Your task to perform on an android device: install app "Contacts" Image 0: 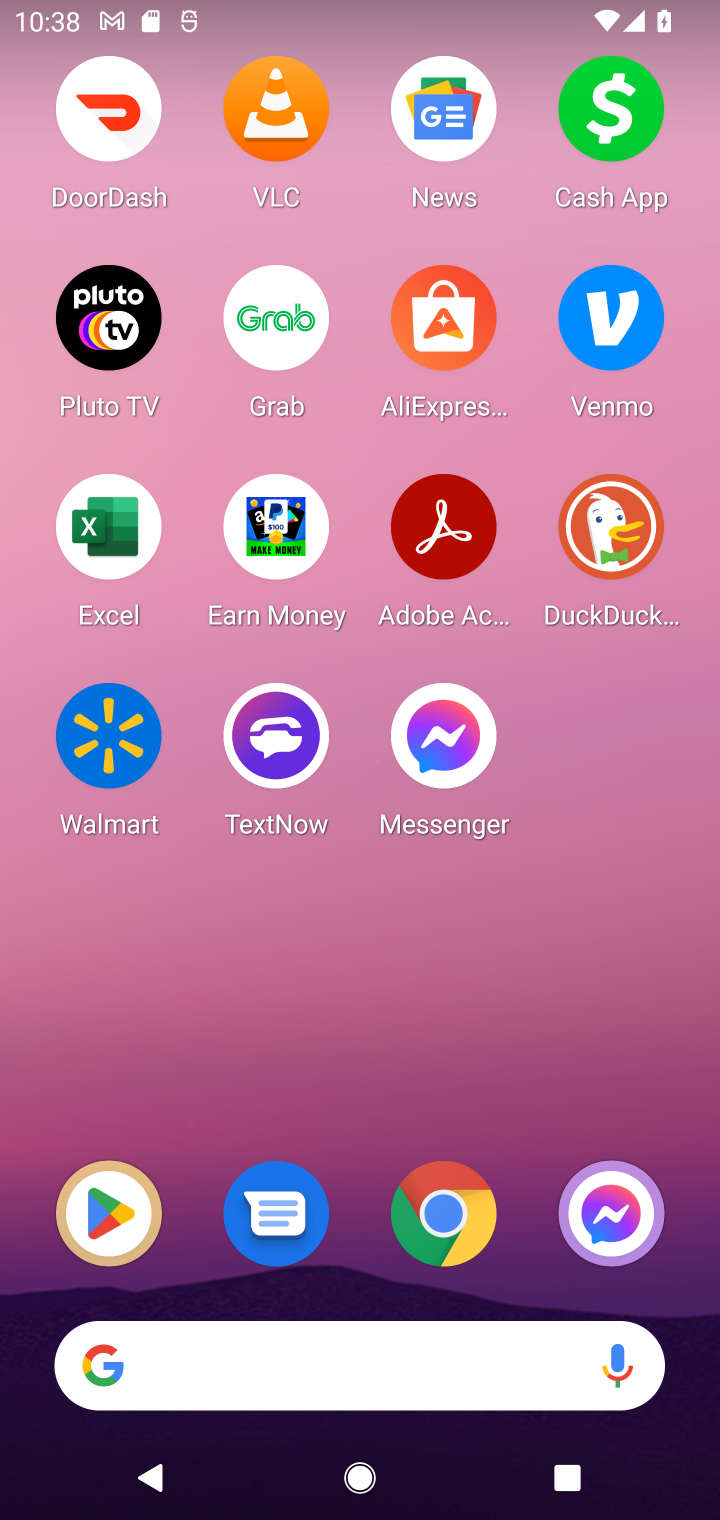
Step 0: drag from (372, 1238) to (347, 401)
Your task to perform on an android device: install app "Contacts" Image 1: 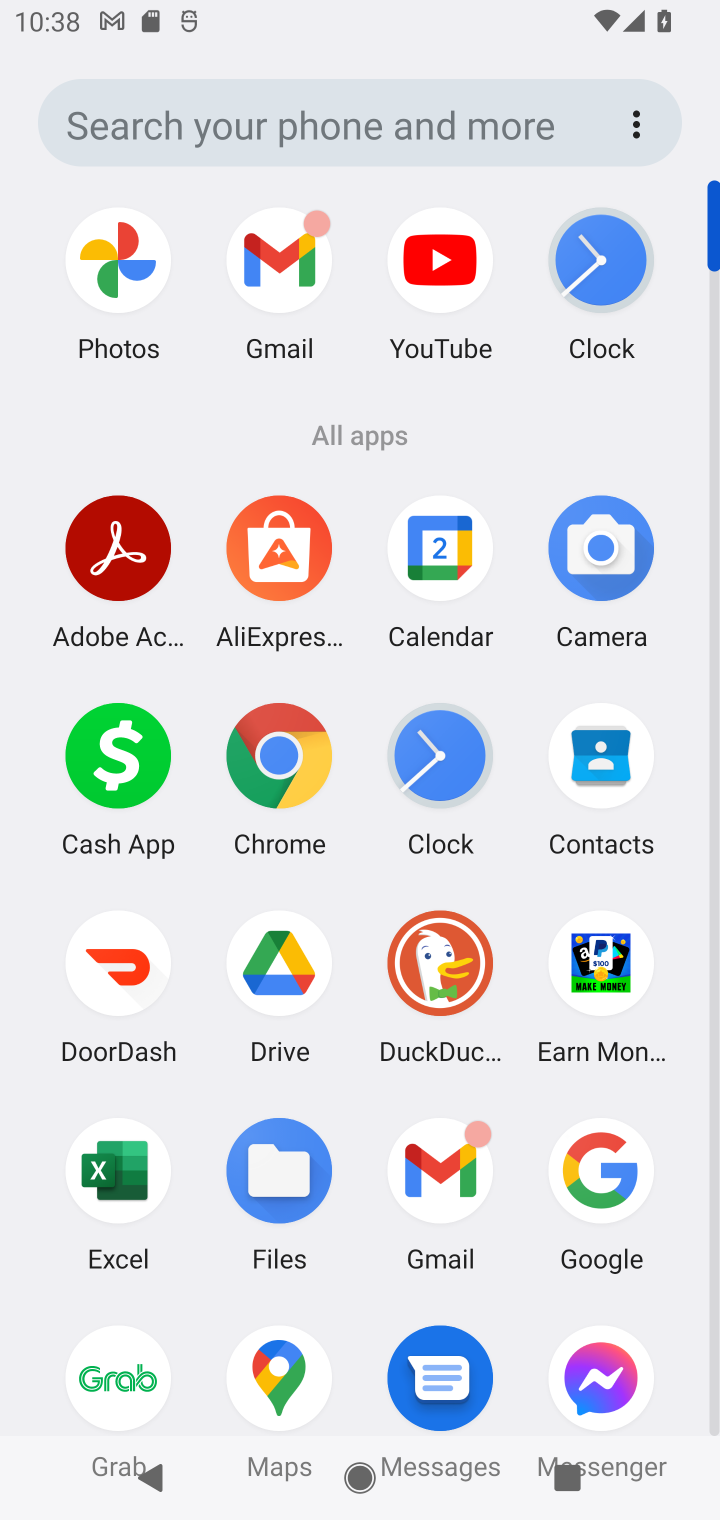
Step 1: drag from (489, 1158) to (522, 442)
Your task to perform on an android device: install app "Contacts" Image 2: 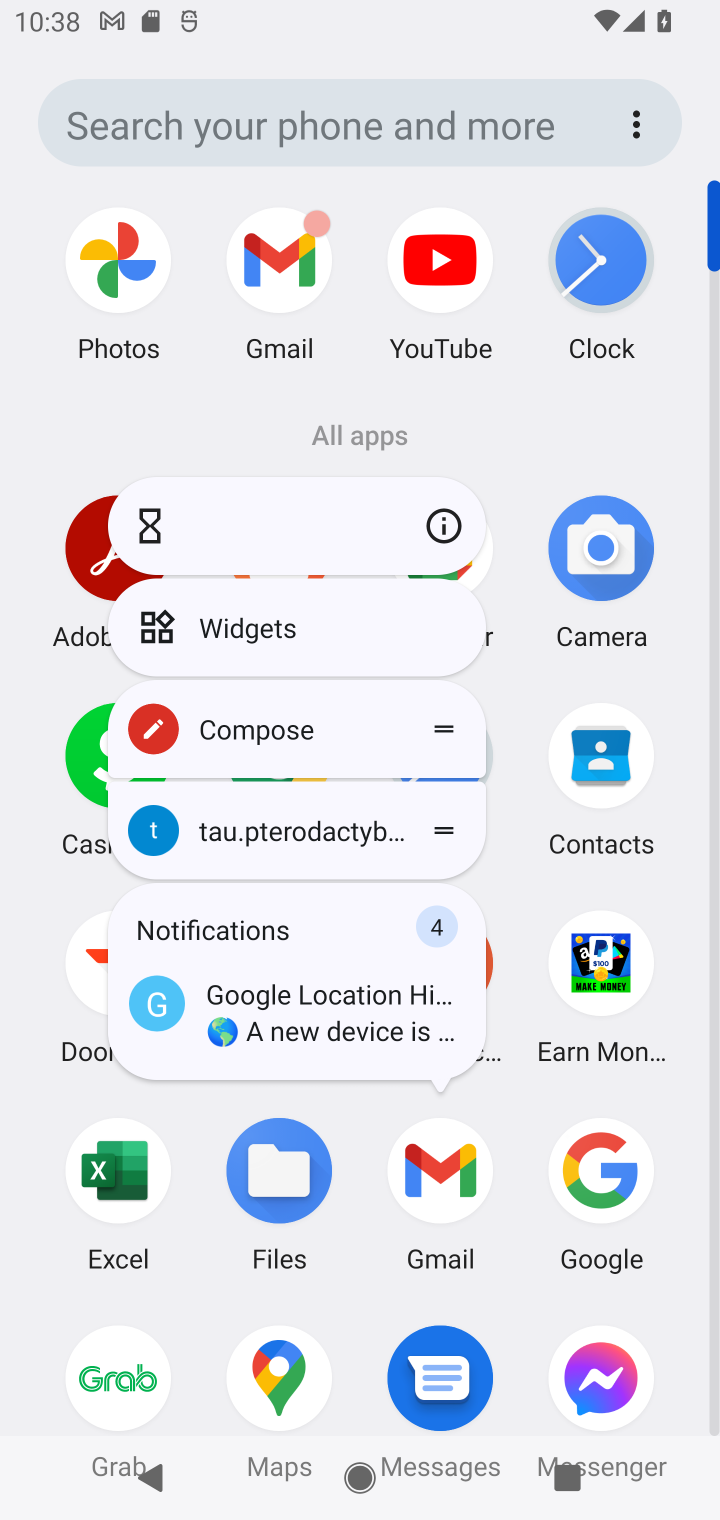
Step 2: press back button
Your task to perform on an android device: install app "Contacts" Image 3: 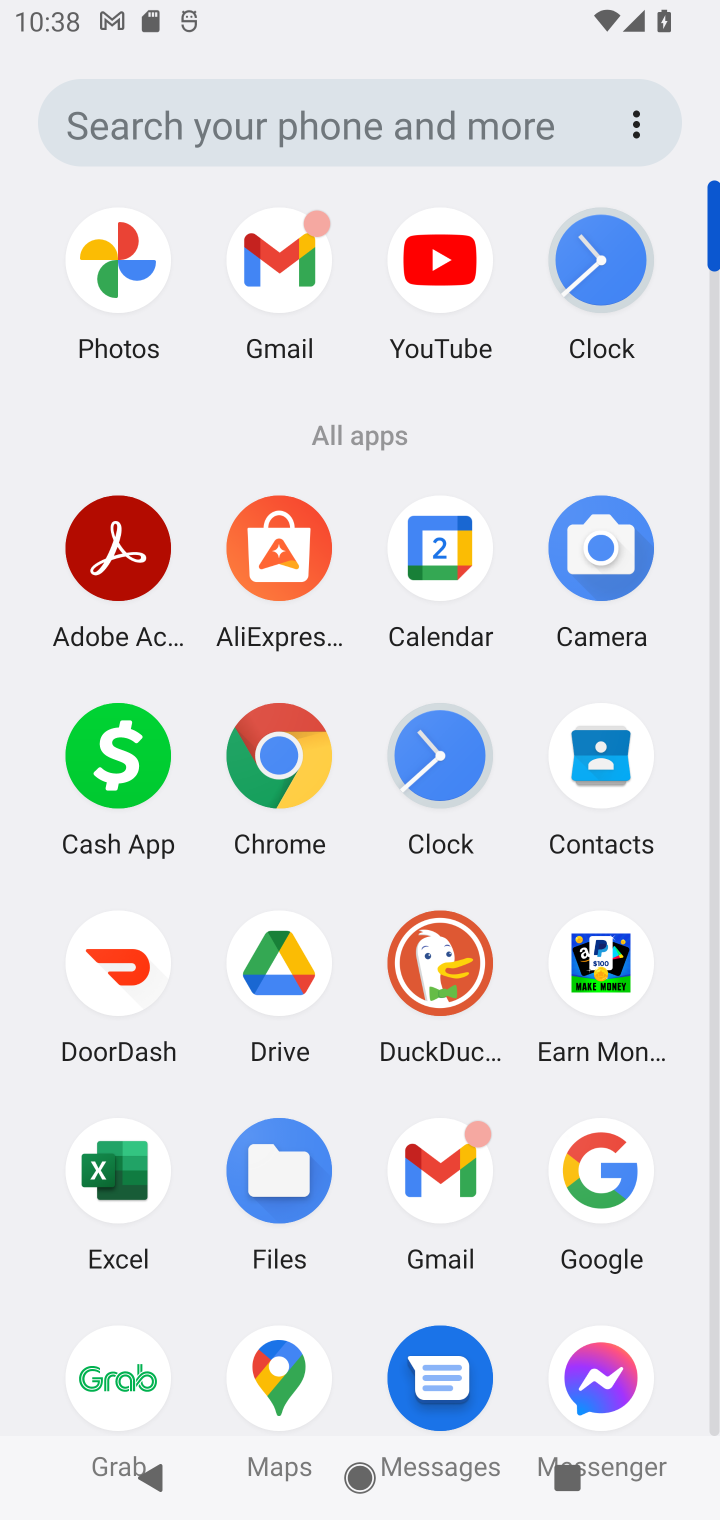
Step 3: press back button
Your task to perform on an android device: install app "Contacts" Image 4: 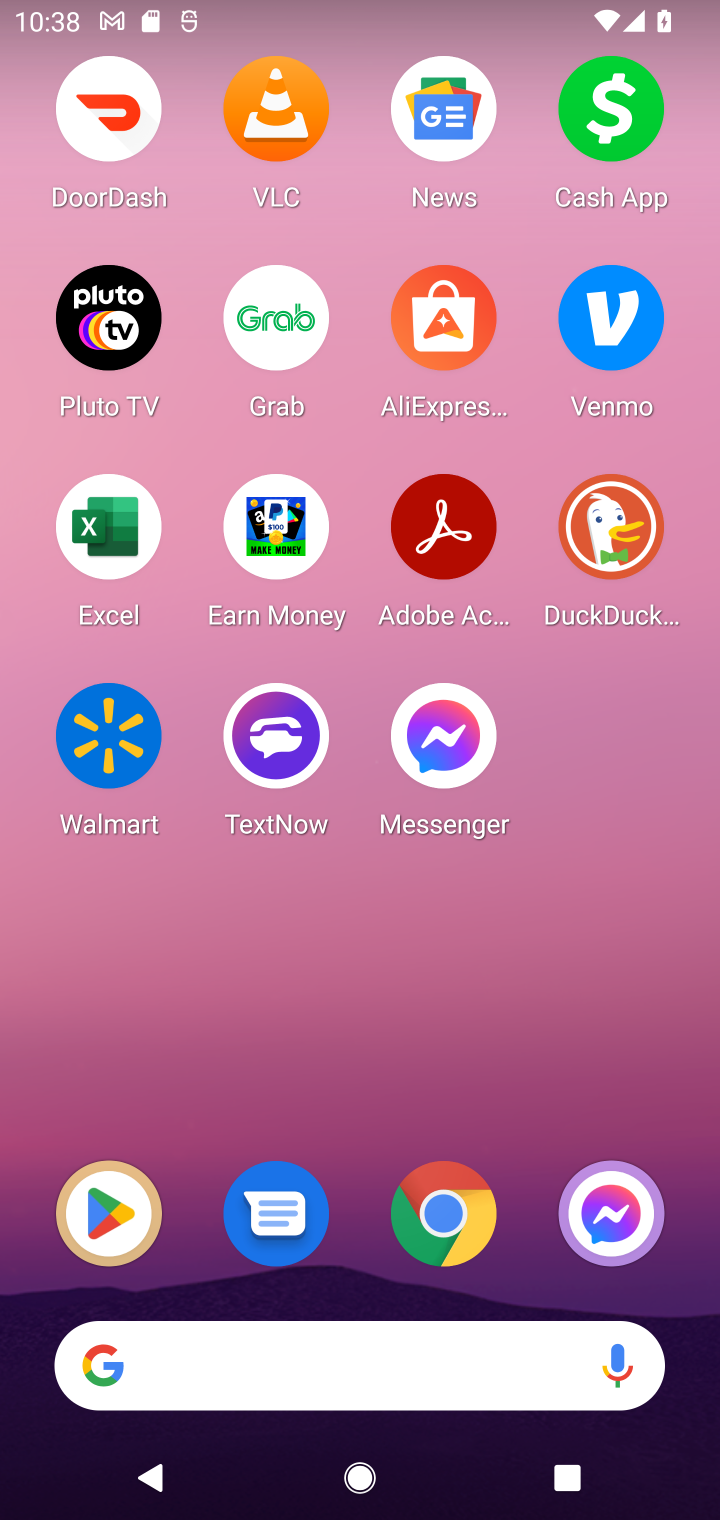
Step 4: click (114, 1218)
Your task to perform on an android device: install app "Contacts" Image 5: 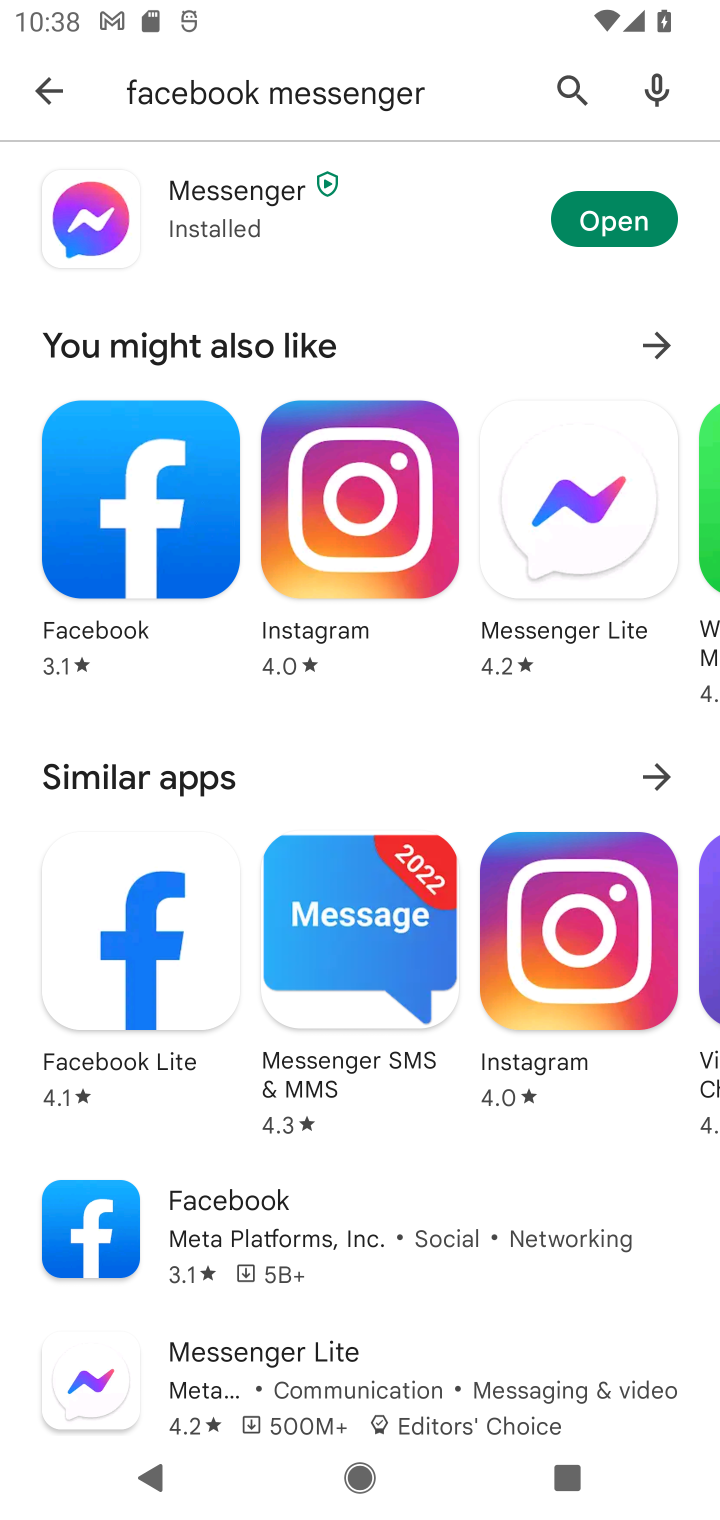
Step 5: click (60, 96)
Your task to perform on an android device: install app "Contacts" Image 6: 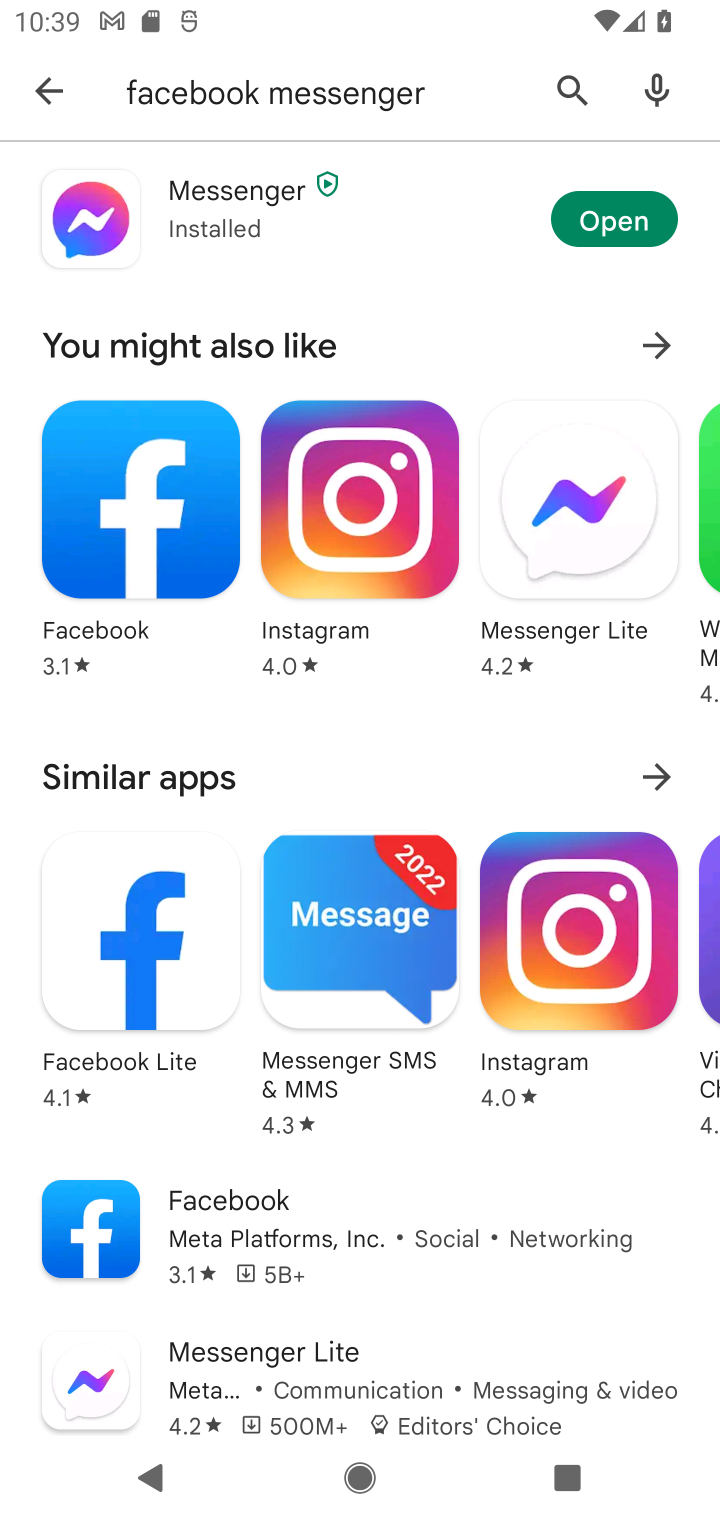
Step 6: click (43, 91)
Your task to perform on an android device: install app "Contacts" Image 7: 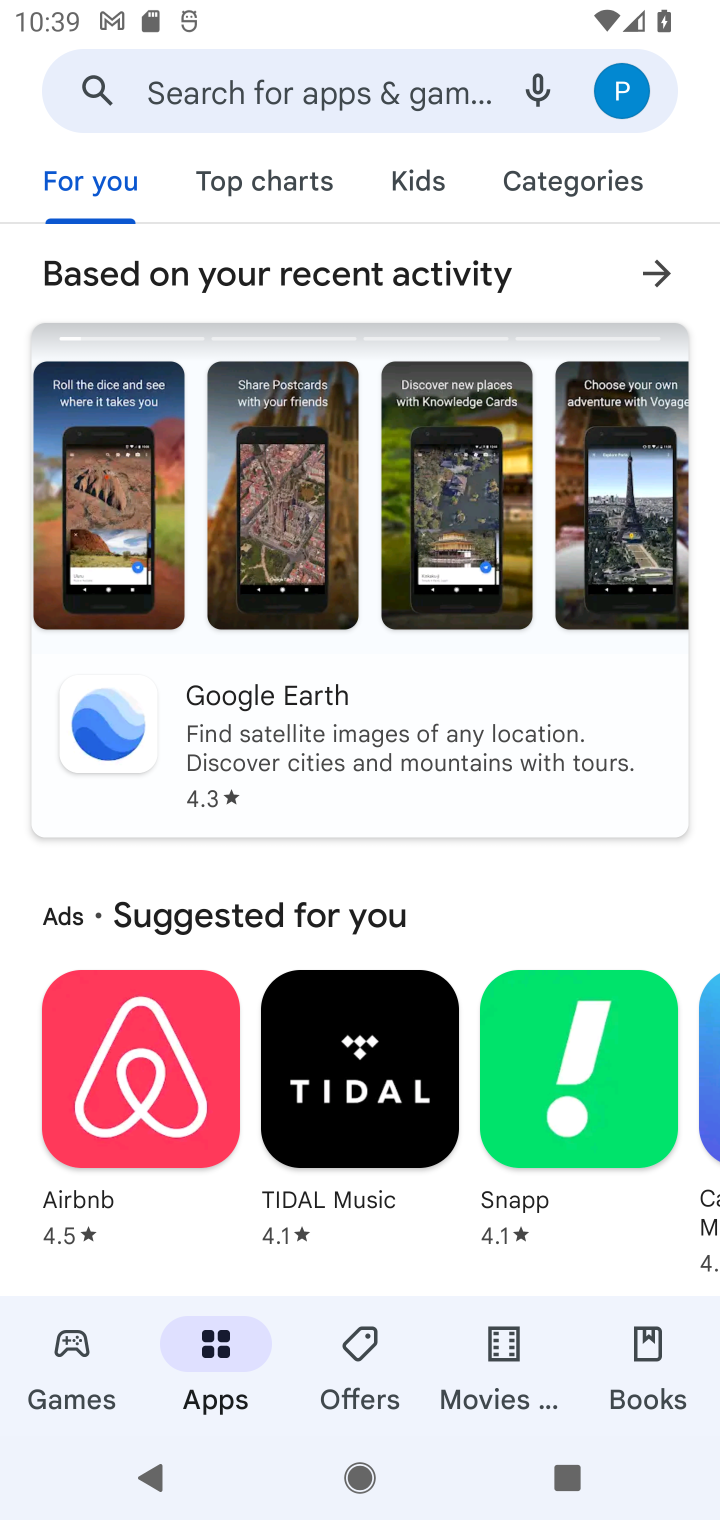
Step 7: click (285, 95)
Your task to perform on an android device: install app "Contacts" Image 8: 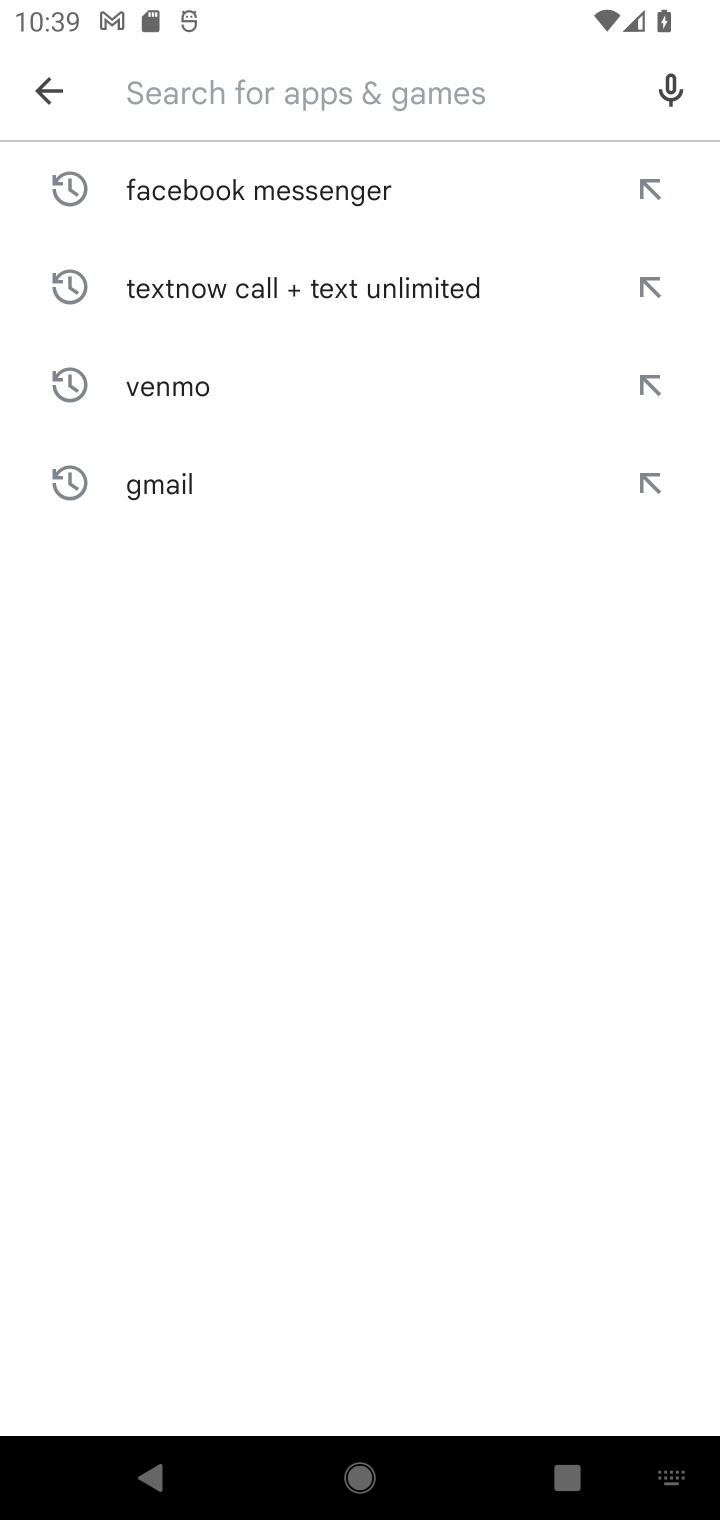
Step 8: type "Contacts"
Your task to perform on an android device: install app "Contacts" Image 9: 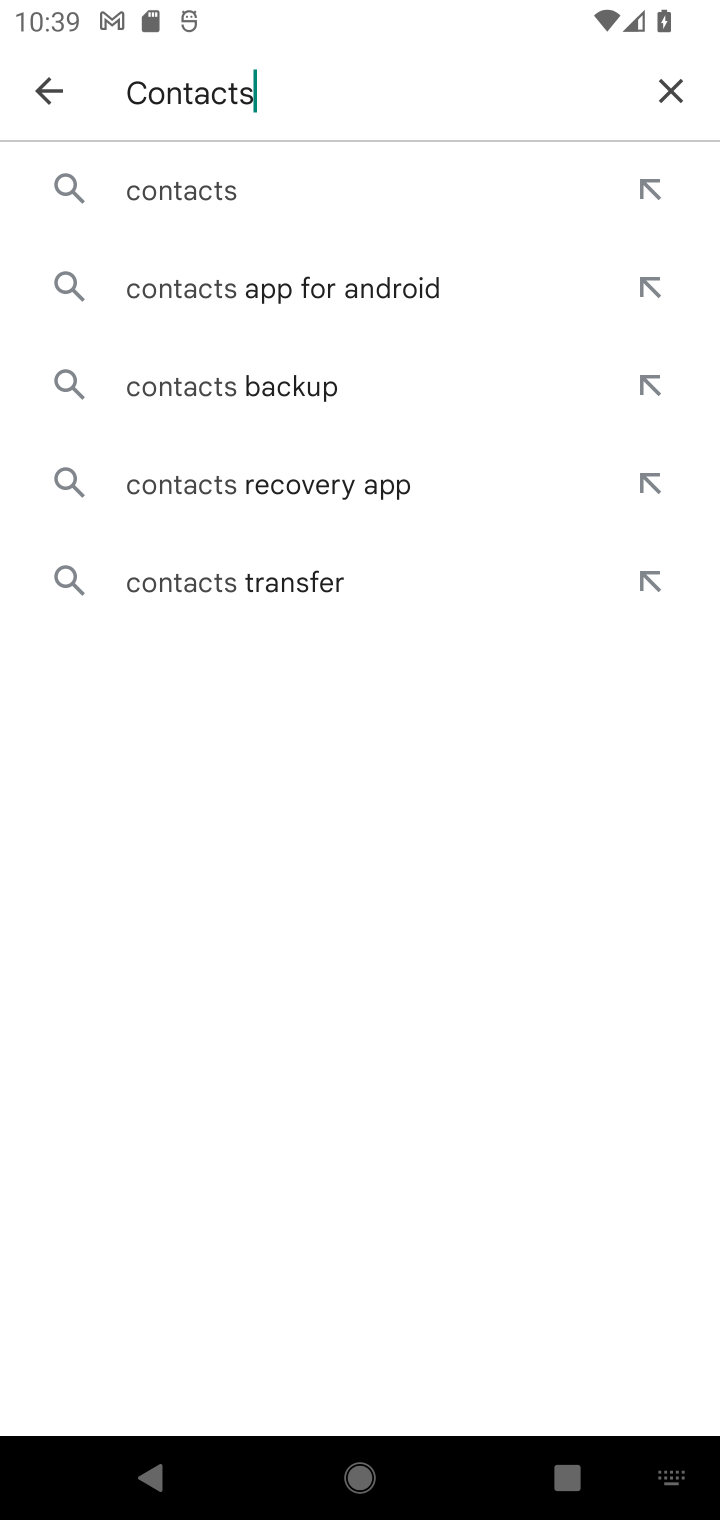
Step 9: click (147, 182)
Your task to perform on an android device: install app "Contacts" Image 10: 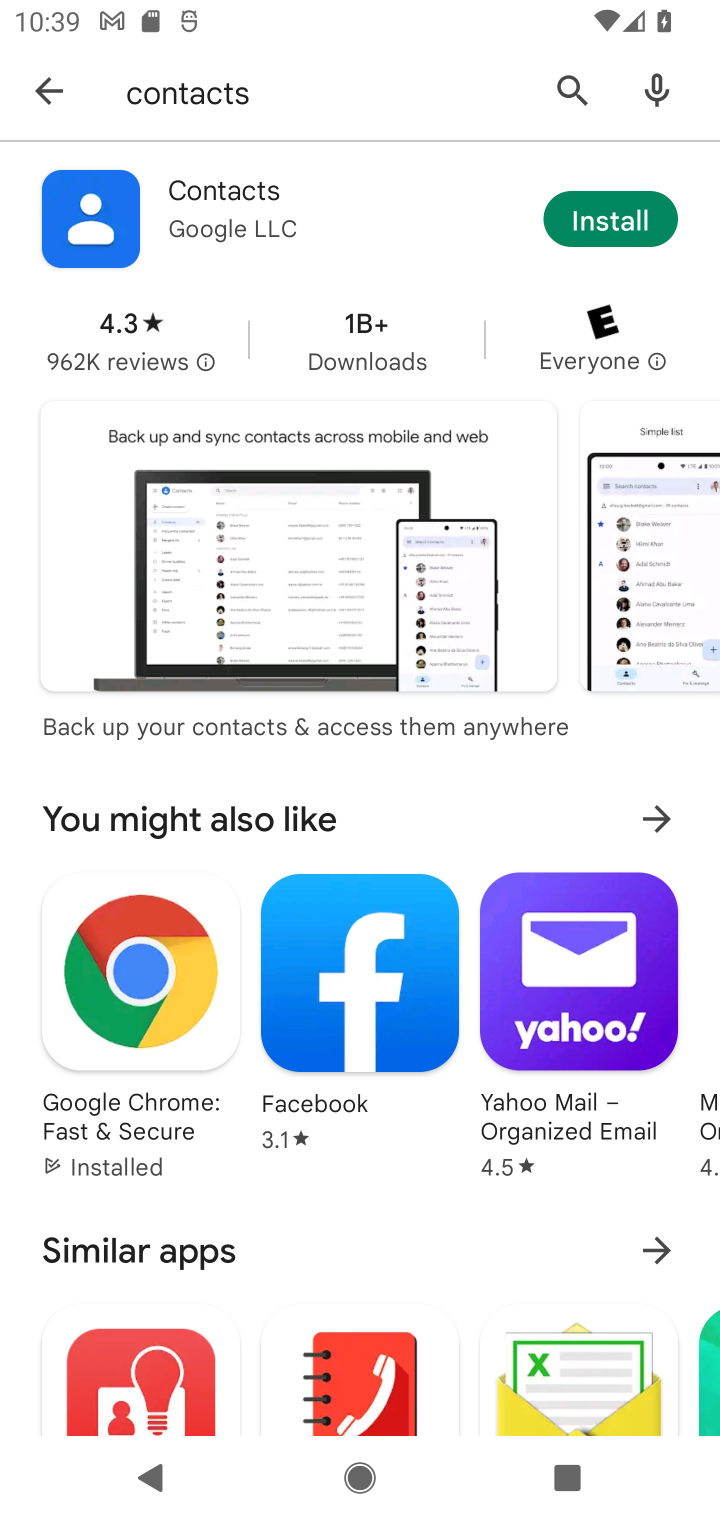
Step 10: task complete